Your task to perform on an android device: set an alarm Image 0: 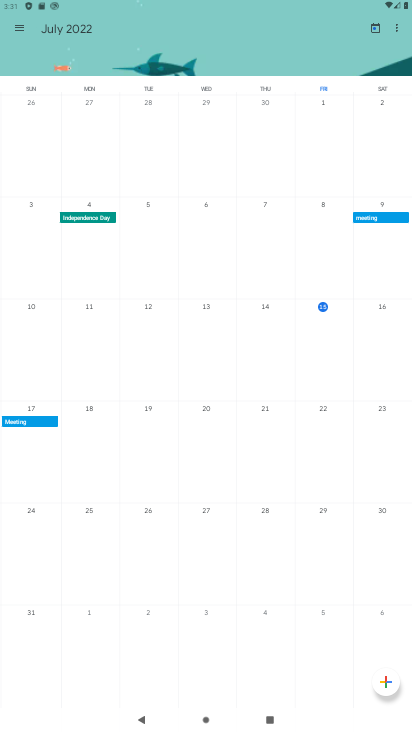
Step 0: press home button
Your task to perform on an android device: set an alarm Image 1: 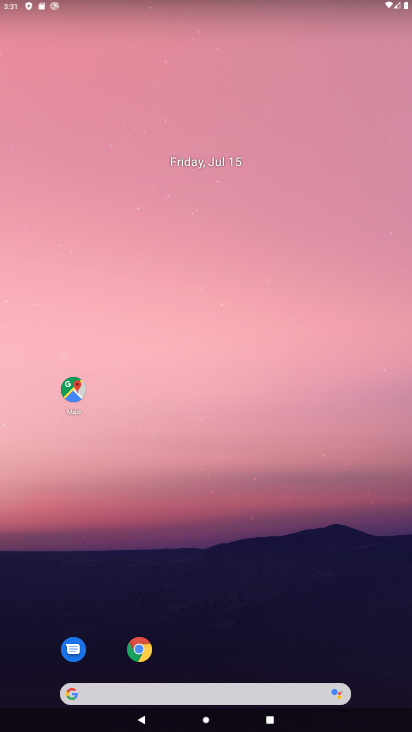
Step 1: drag from (315, 590) to (202, 22)
Your task to perform on an android device: set an alarm Image 2: 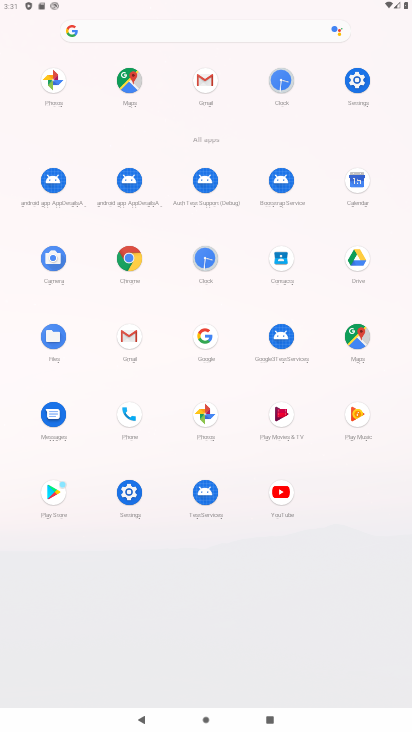
Step 2: click (204, 254)
Your task to perform on an android device: set an alarm Image 3: 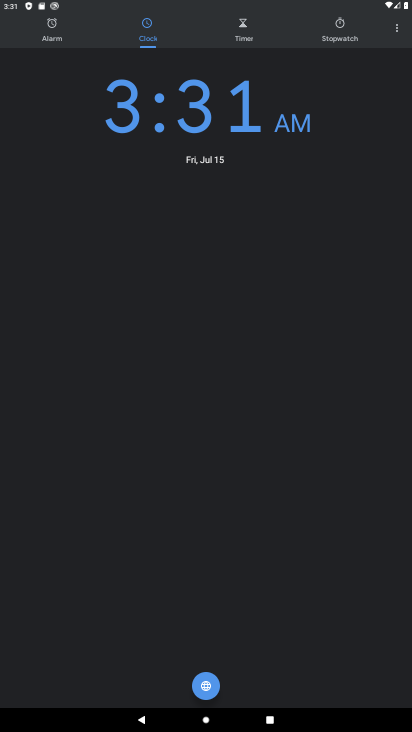
Step 3: click (52, 31)
Your task to perform on an android device: set an alarm Image 4: 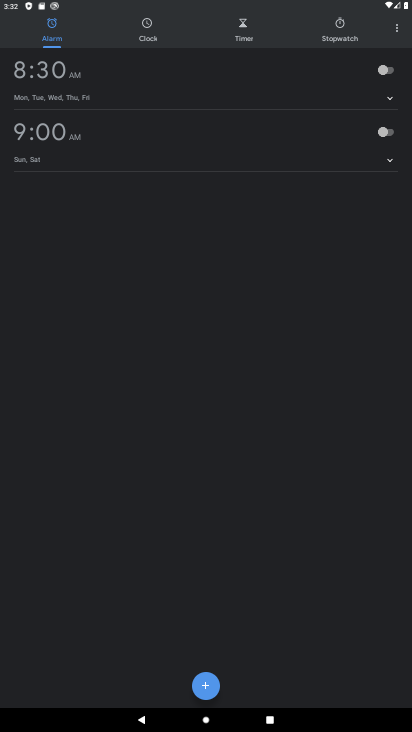
Step 4: click (385, 74)
Your task to perform on an android device: set an alarm Image 5: 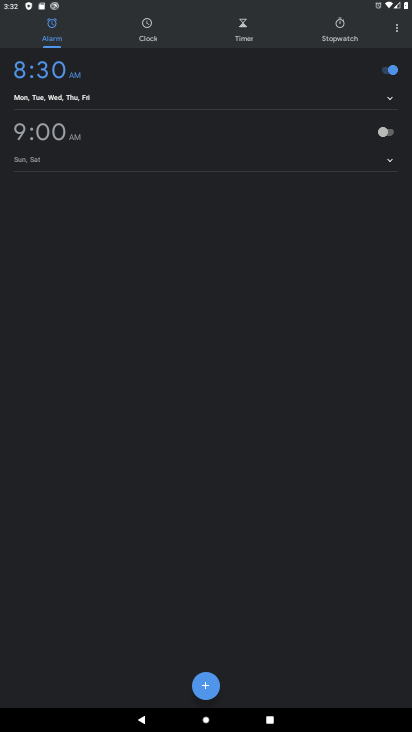
Step 5: task complete